Your task to perform on an android device: Clear the cart on newegg.com. Add "corsair k70" to the cart on newegg.com, then select checkout. Image 0: 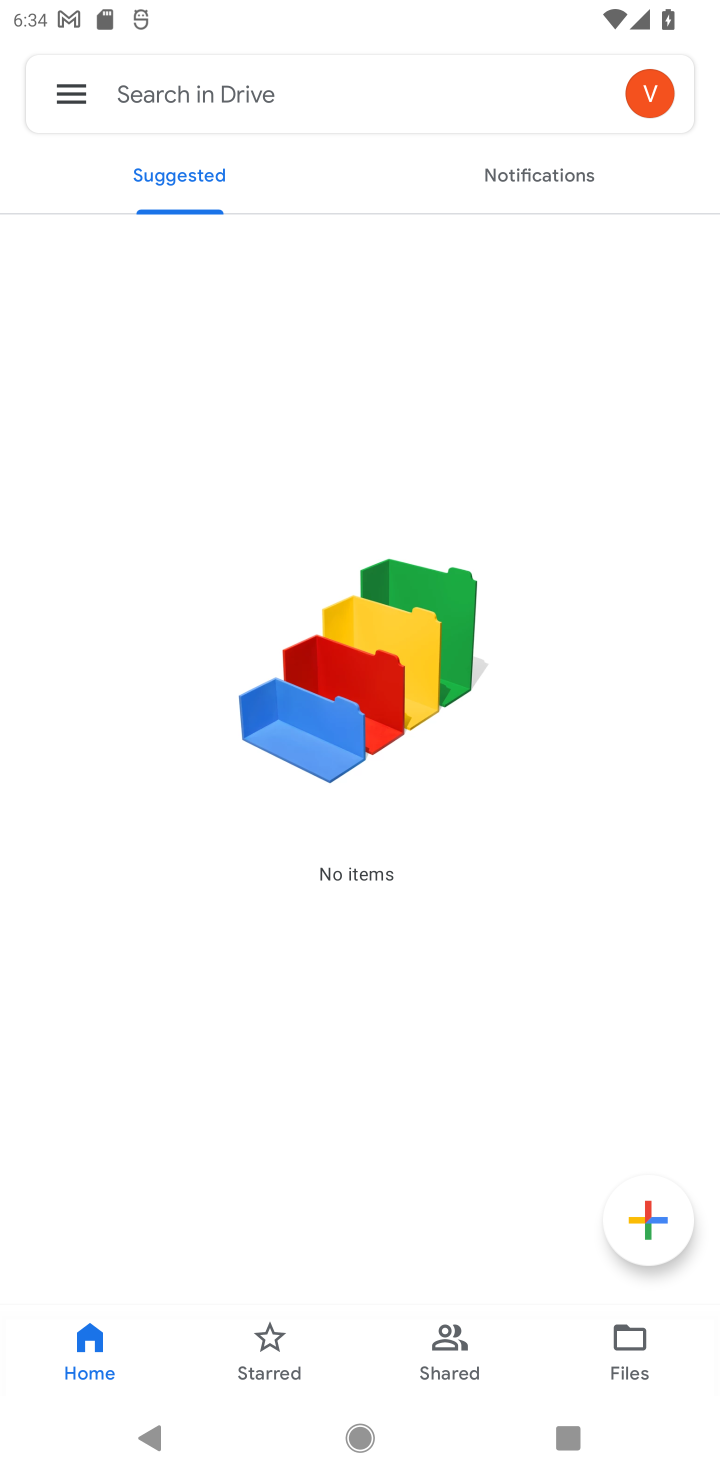
Step 0: press home button
Your task to perform on an android device: Clear the cart on newegg.com. Add "corsair k70" to the cart on newegg.com, then select checkout. Image 1: 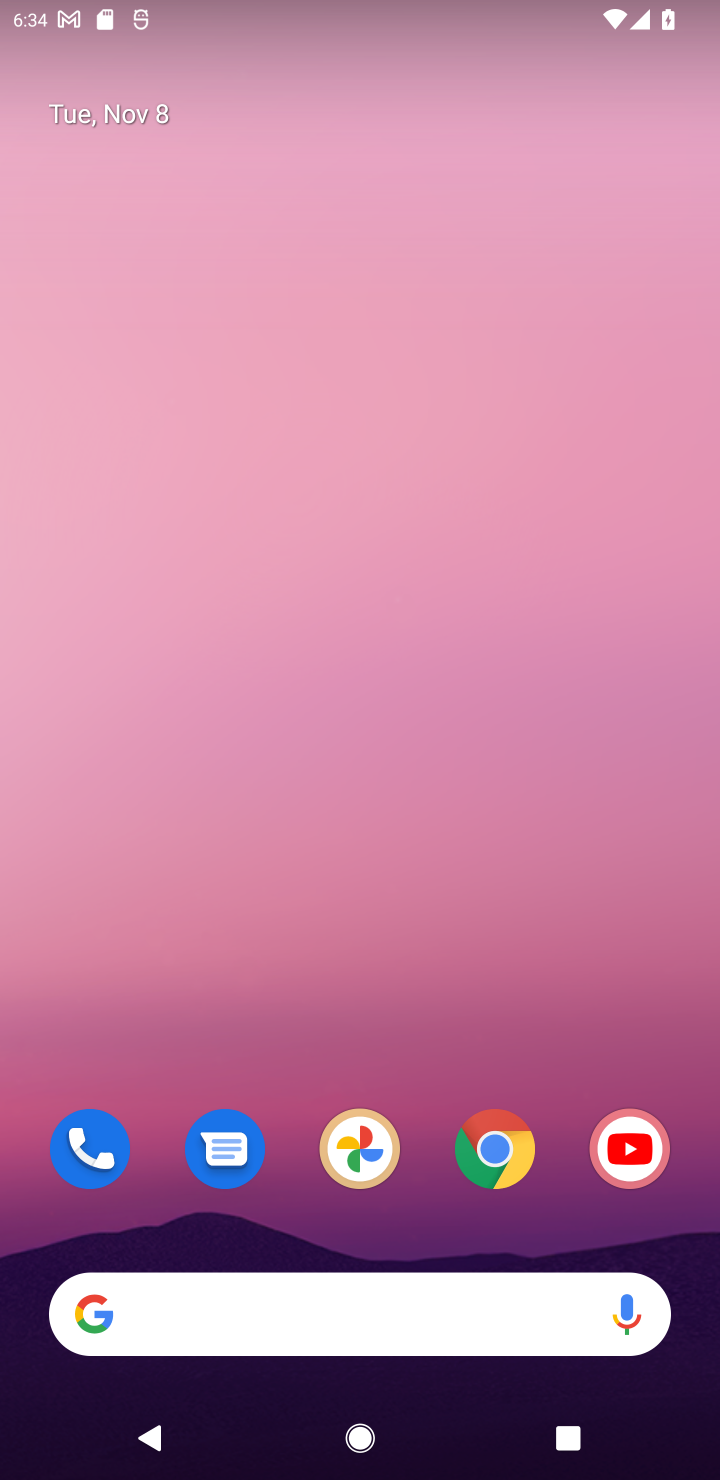
Step 1: click (512, 1146)
Your task to perform on an android device: Clear the cart on newegg.com. Add "corsair k70" to the cart on newegg.com, then select checkout. Image 2: 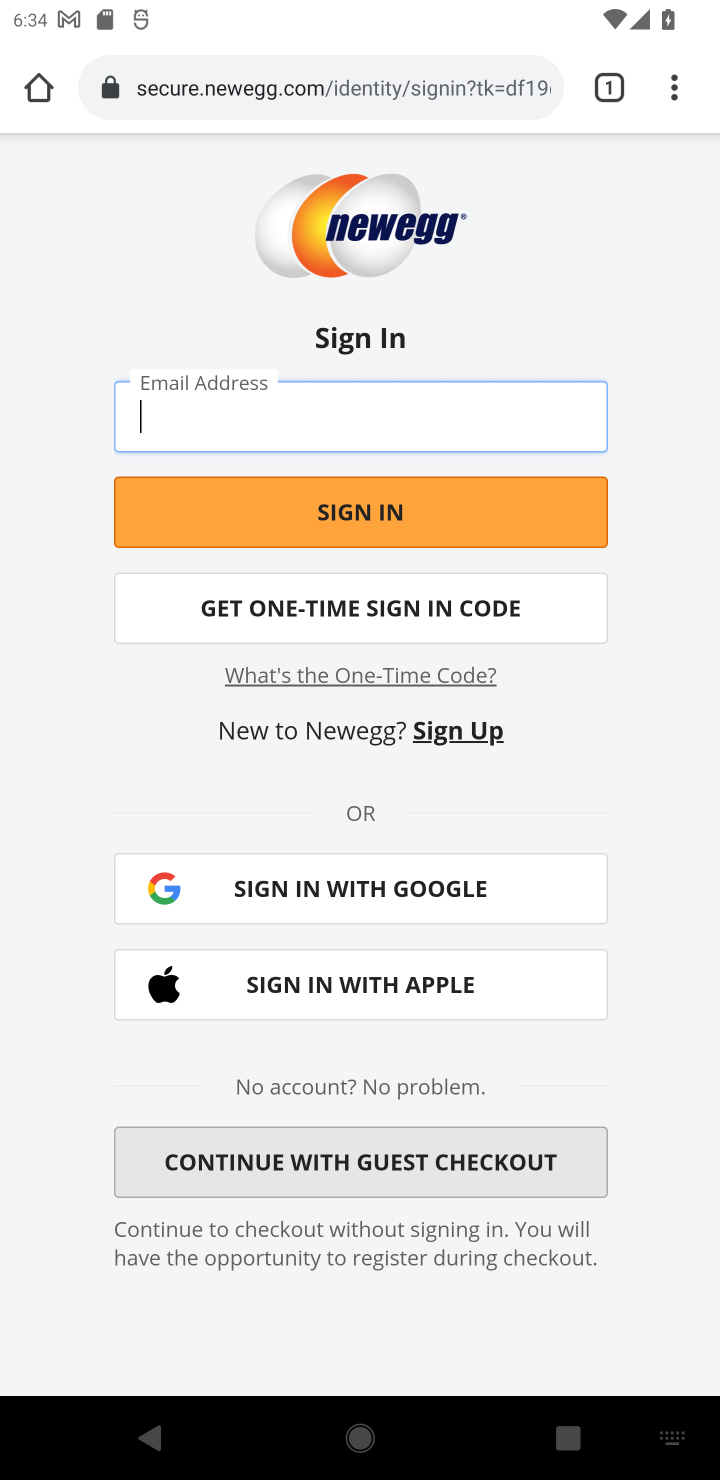
Step 2: press back button
Your task to perform on an android device: Clear the cart on newegg.com. Add "corsair k70" to the cart on newegg.com, then select checkout. Image 3: 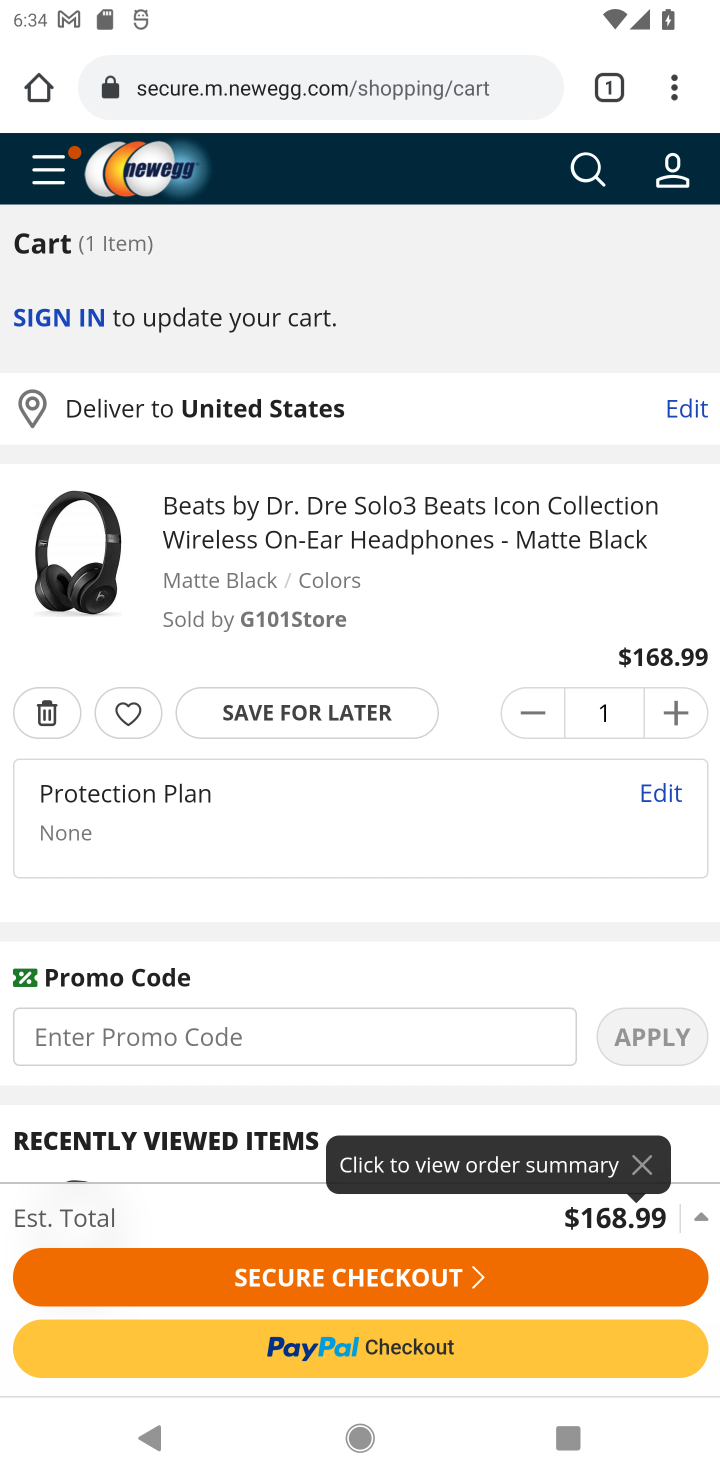
Step 3: click (518, 175)
Your task to perform on an android device: Clear the cart on newegg.com. Add "corsair k70" to the cart on newegg.com, then select checkout. Image 4: 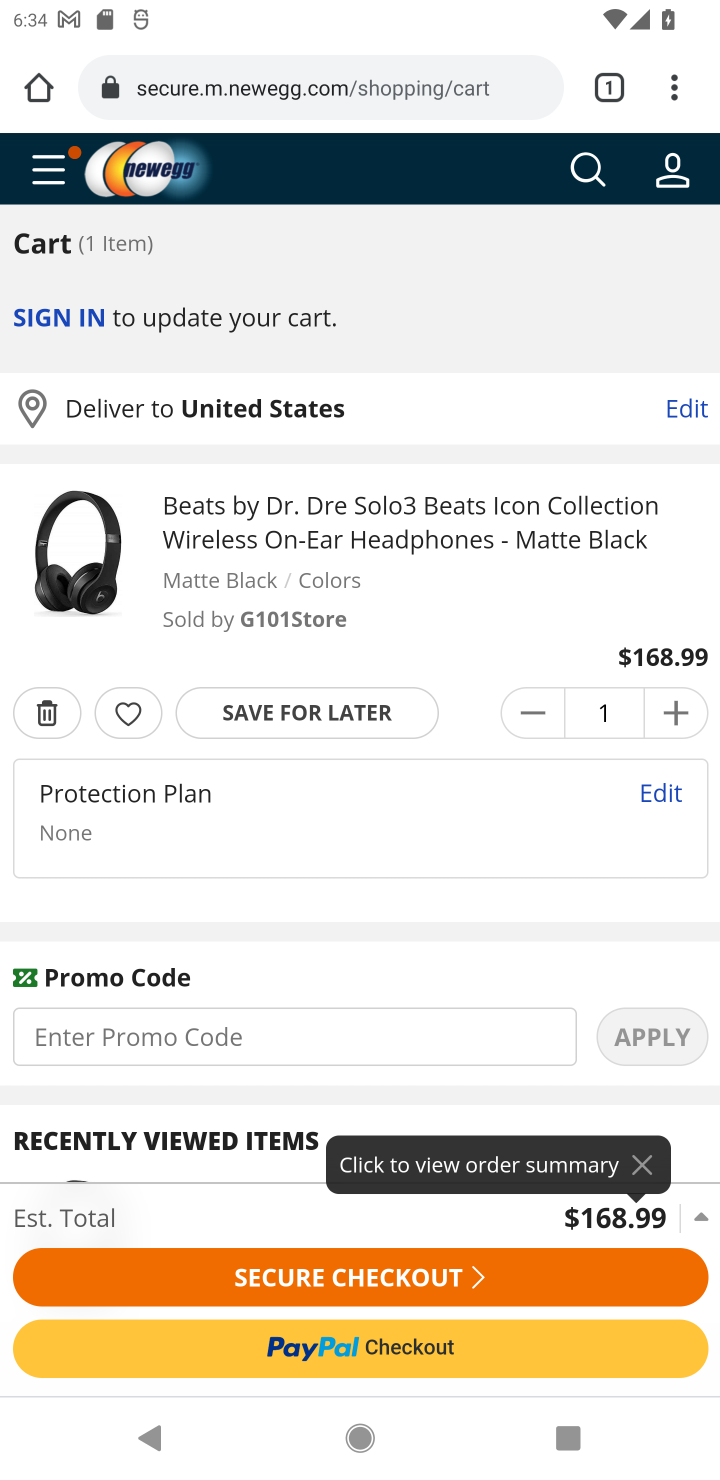
Step 4: click (516, 174)
Your task to perform on an android device: Clear the cart on newegg.com. Add "corsair k70" to the cart on newegg.com, then select checkout. Image 5: 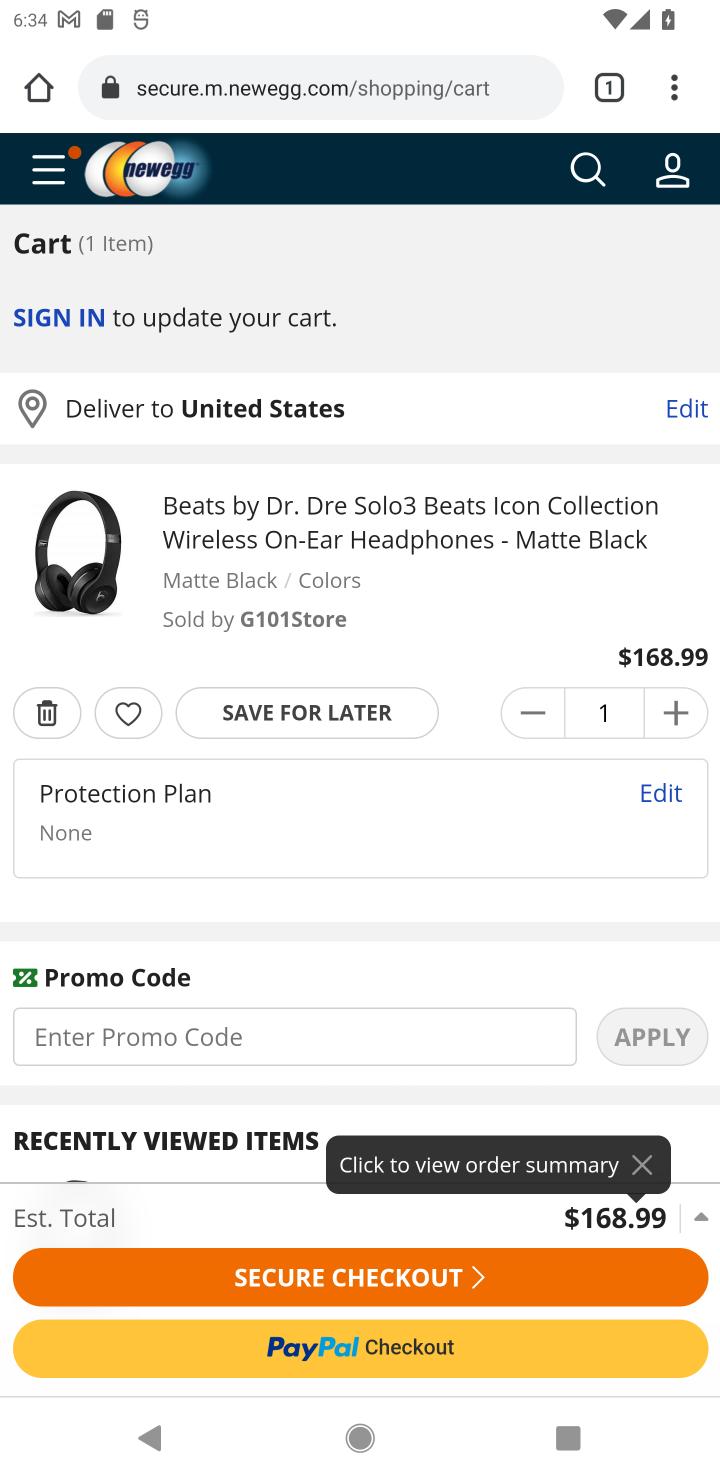
Step 5: click (688, 161)
Your task to perform on an android device: Clear the cart on newegg.com. Add "corsair k70" to the cart on newegg.com, then select checkout. Image 6: 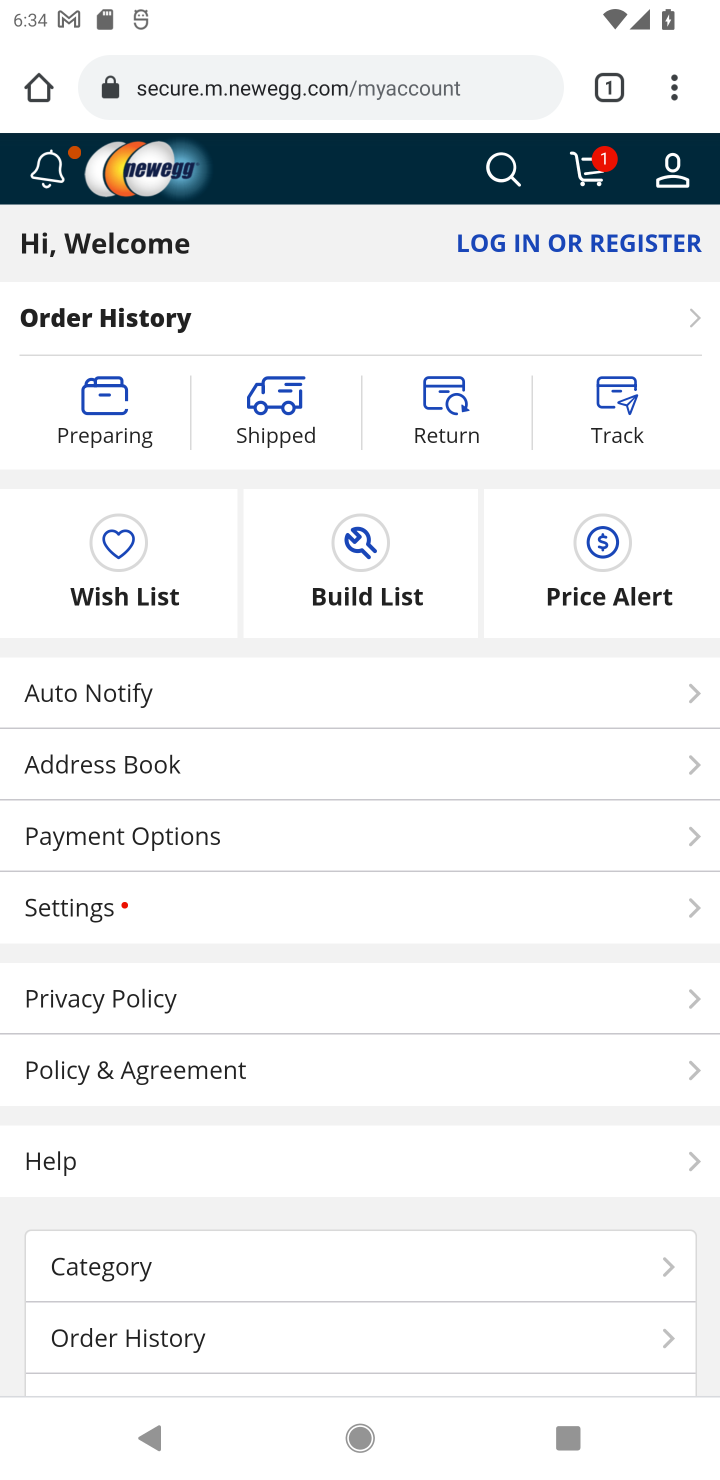
Step 6: click (579, 169)
Your task to perform on an android device: Clear the cart on newegg.com. Add "corsair k70" to the cart on newegg.com, then select checkout. Image 7: 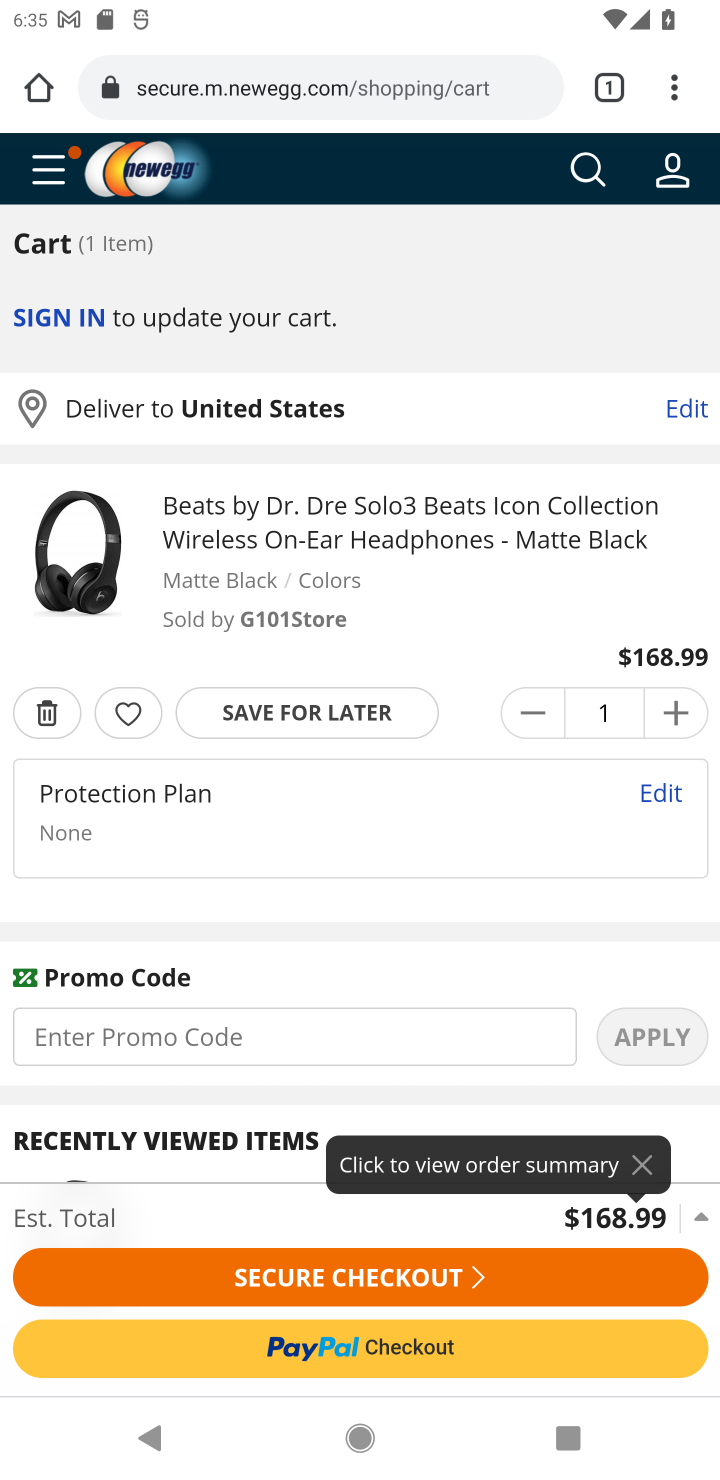
Step 7: click (581, 161)
Your task to perform on an android device: Clear the cart on newegg.com. Add "corsair k70" to the cart on newegg.com, then select checkout. Image 8: 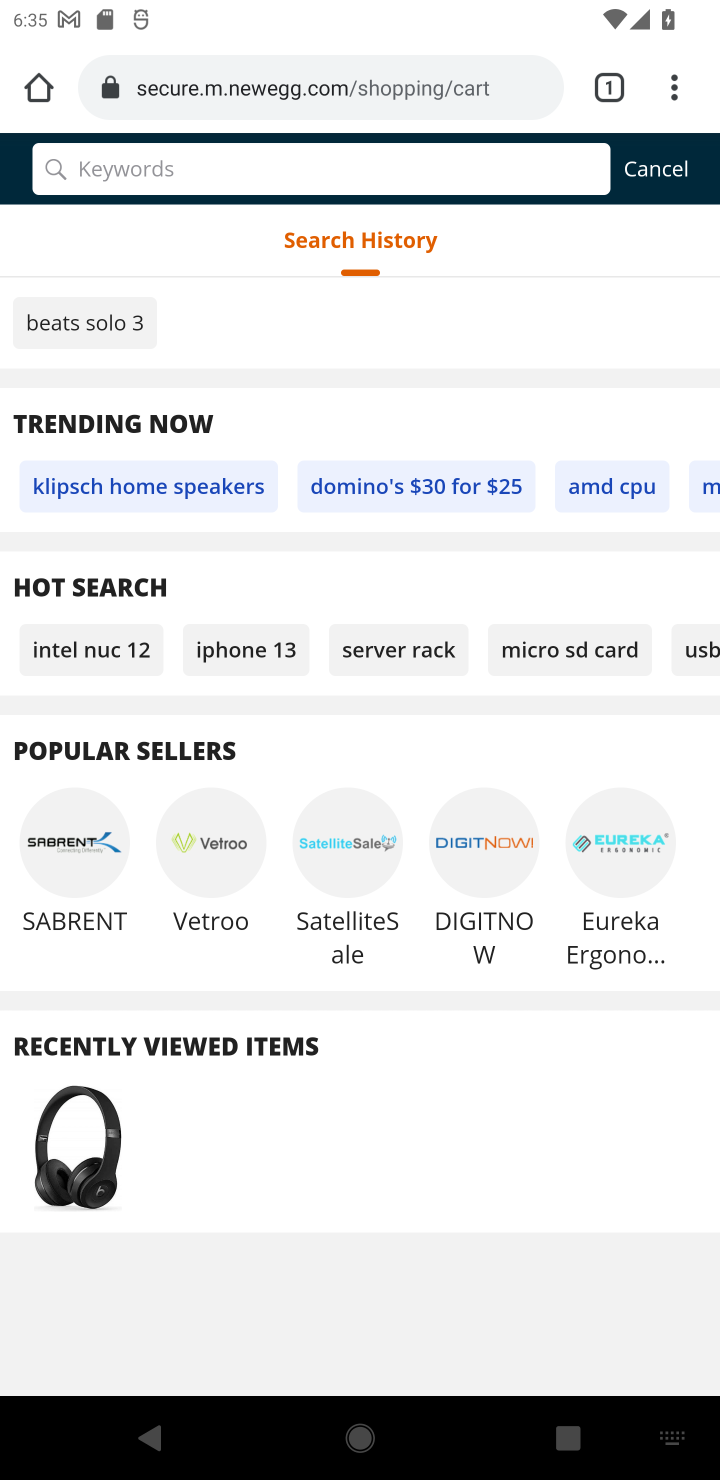
Step 8: click (670, 162)
Your task to perform on an android device: Clear the cart on newegg.com. Add "corsair k70" to the cart on newegg.com, then select checkout. Image 9: 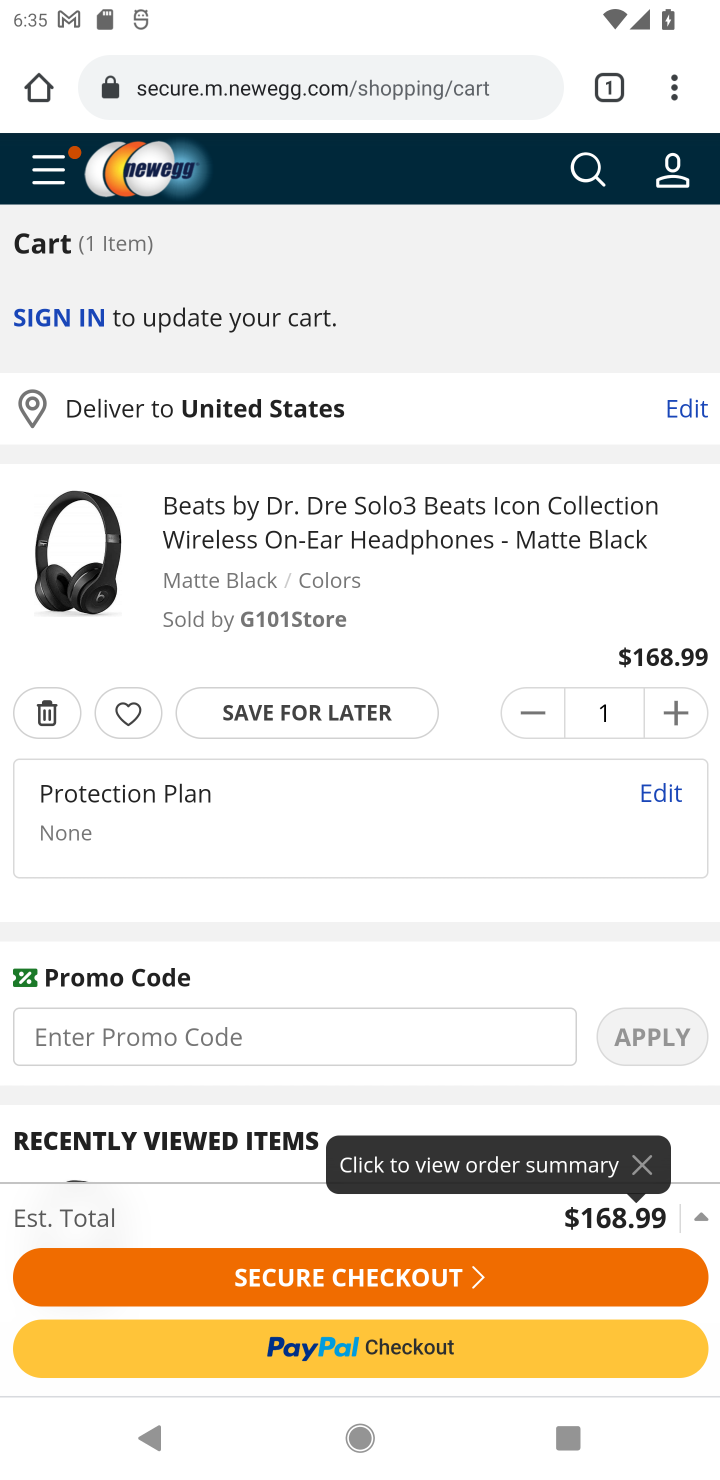
Step 9: click (674, 160)
Your task to perform on an android device: Clear the cart on newegg.com. Add "corsair k70" to the cart on newegg.com, then select checkout. Image 10: 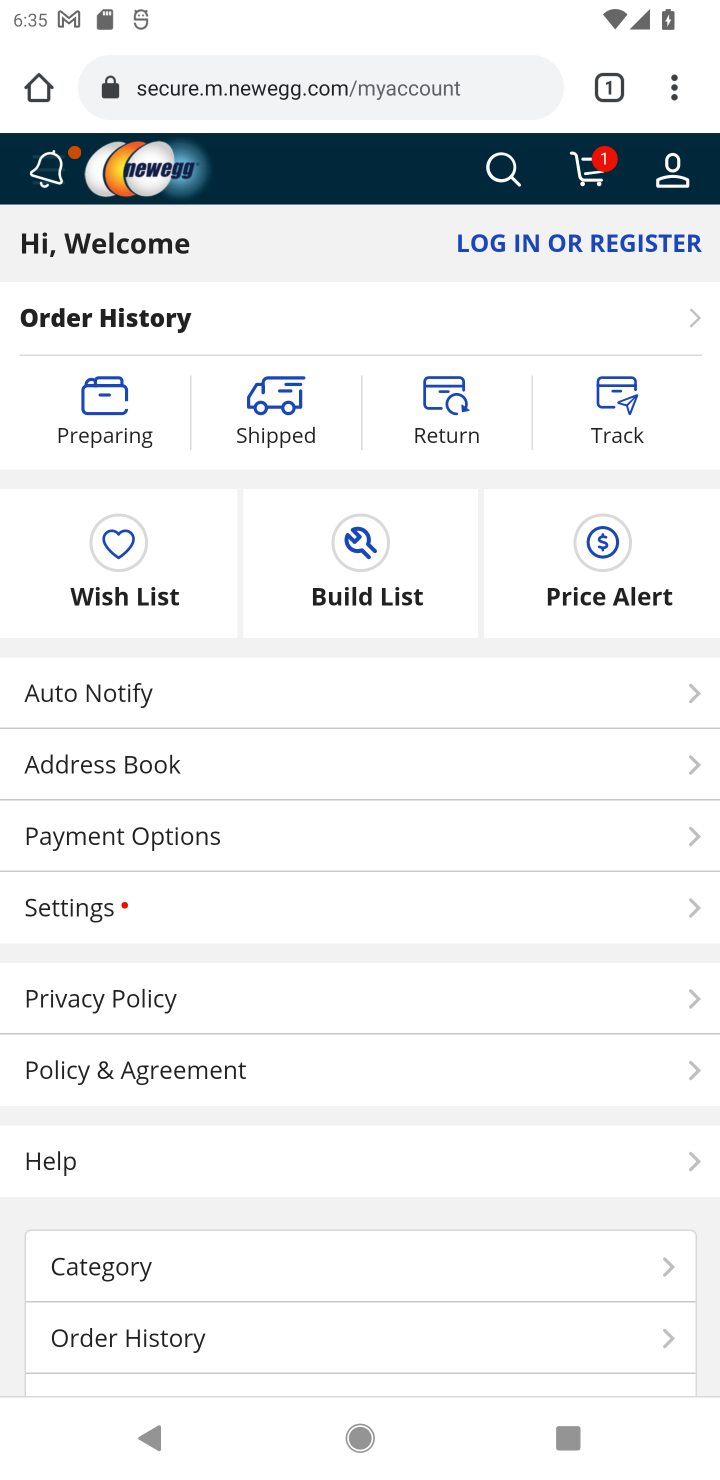
Step 10: click (584, 178)
Your task to perform on an android device: Clear the cart on newegg.com. Add "corsair k70" to the cart on newegg.com, then select checkout. Image 11: 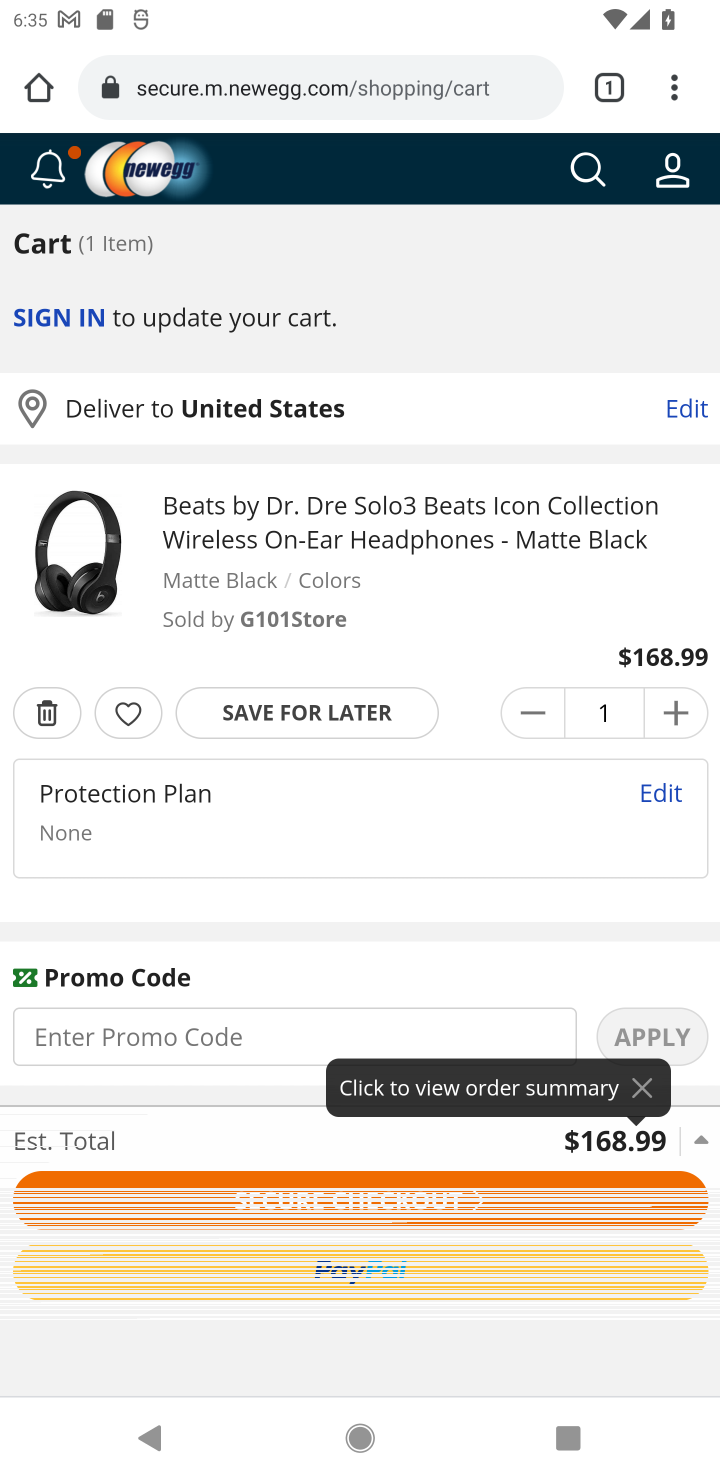
Step 11: click (44, 721)
Your task to perform on an android device: Clear the cart on newegg.com. Add "corsair k70" to the cart on newegg.com, then select checkout. Image 12: 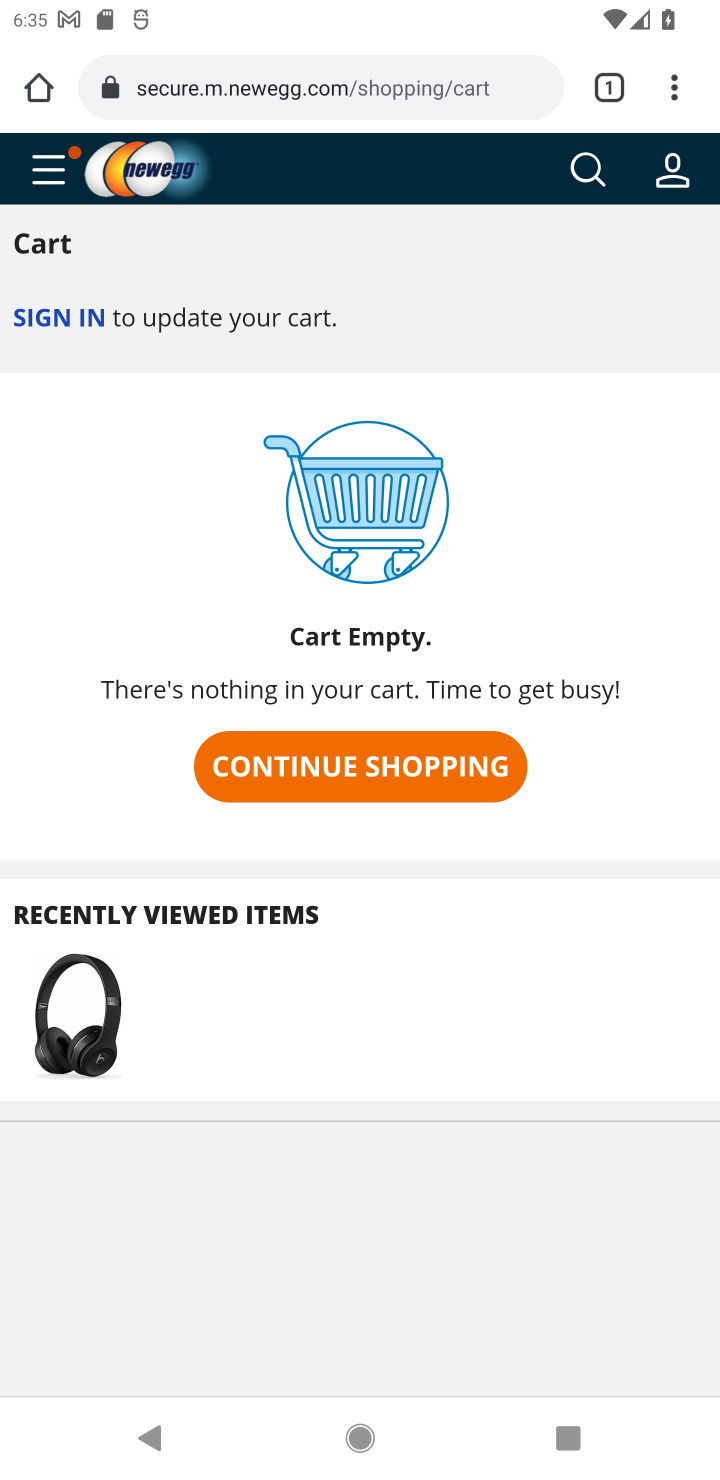
Step 12: click (570, 161)
Your task to perform on an android device: Clear the cart on newegg.com. Add "corsair k70" to the cart on newegg.com, then select checkout. Image 13: 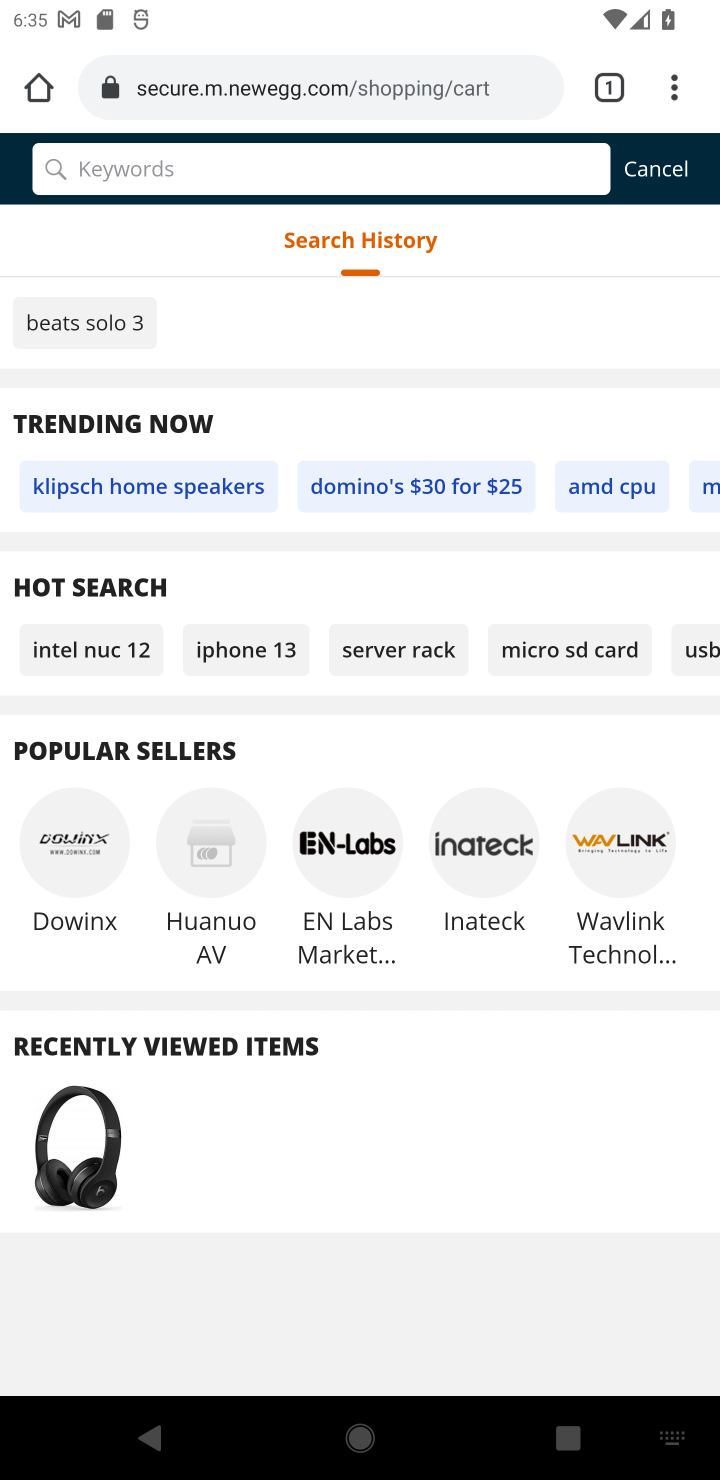
Step 13: press enter
Your task to perform on an android device: Clear the cart on newegg.com. Add "corsair k70" to the cart on newegg.com, then select checkout. Image 14: 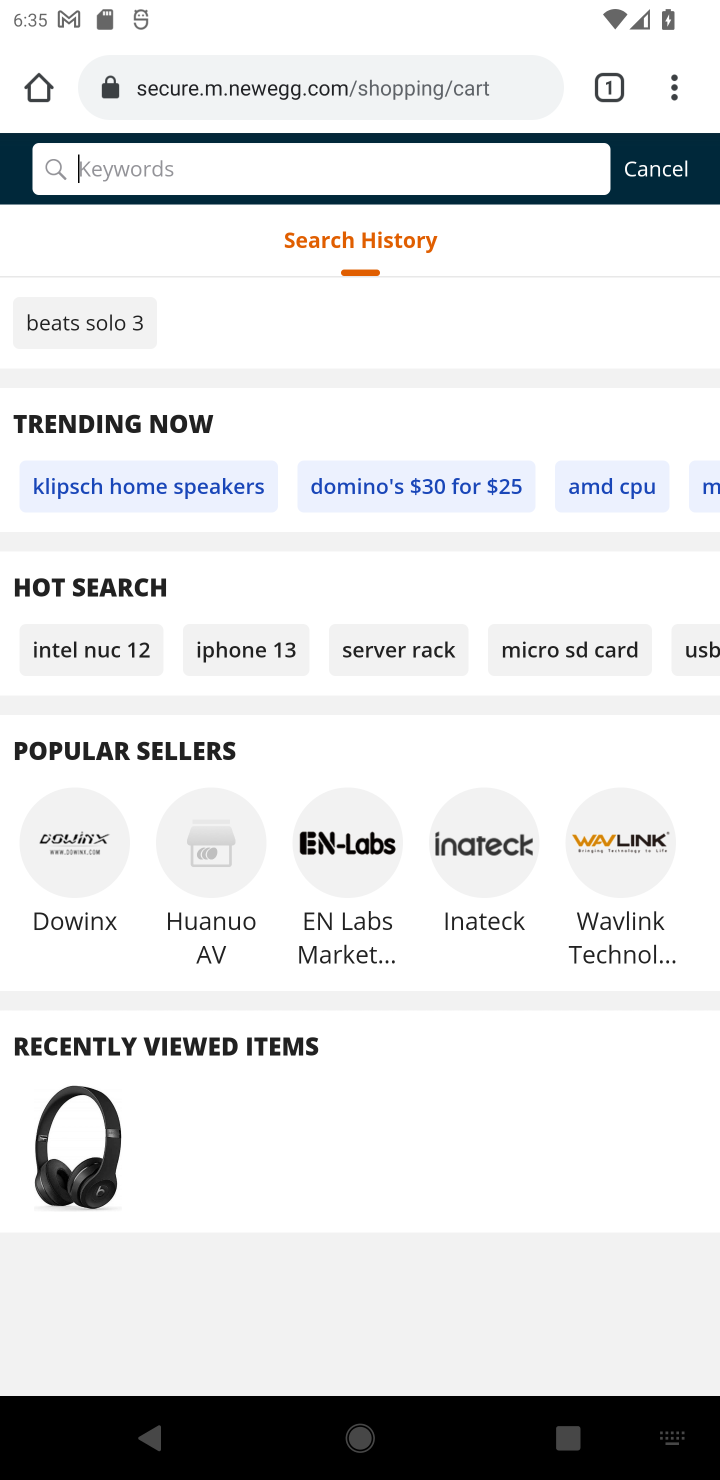
Step 14: type "corsair k70"
Your task to perform on an android device: Clear the cart on newegg.com. Add "corsair k70" to the cart on newegg.com, then select checkout. Image 15: 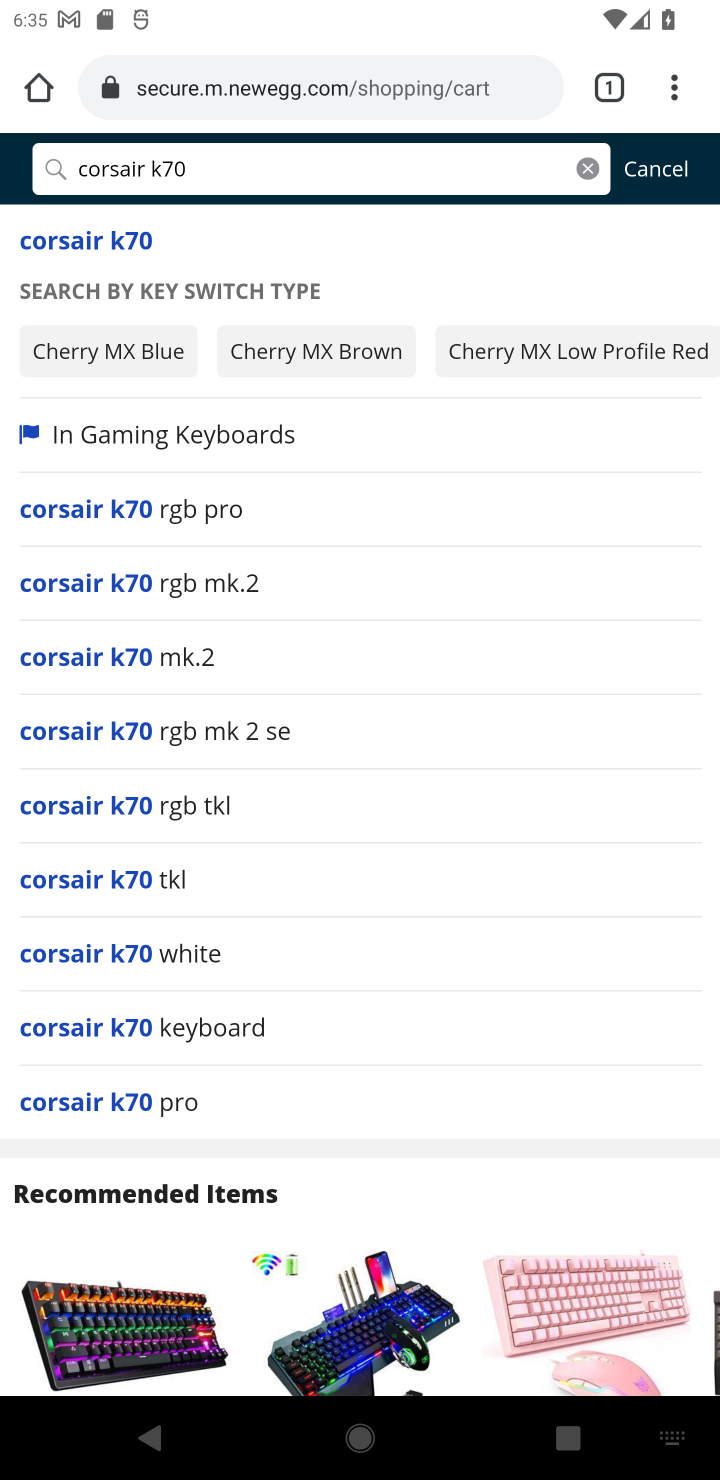
Step 15: click (108, 239)
Your task to perform on an android device: Clear the cart on newegg.com. Add "corsair k70" to the cart on newegg.com, then select checkout. Image 16: 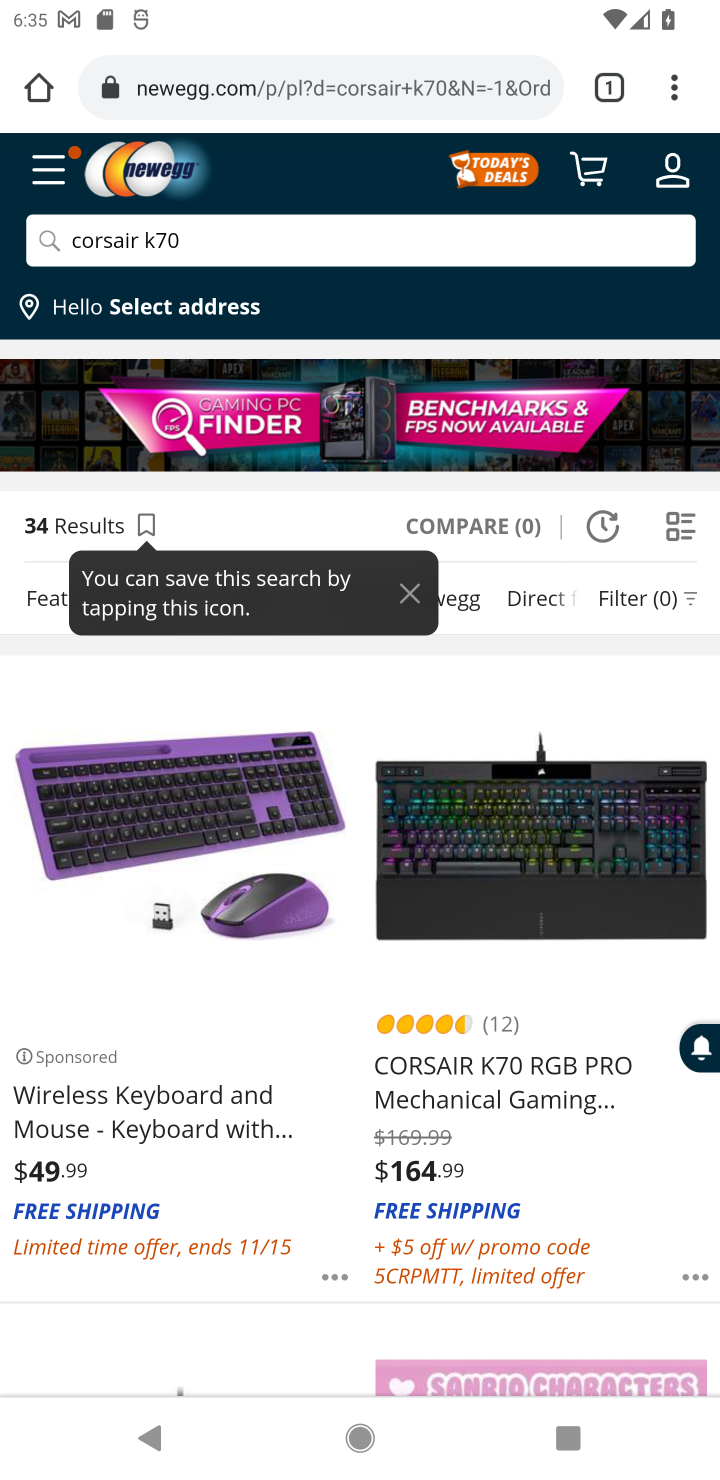
Step 16: click (549, 840)
Your task to perform on an android device: Clear the cart on newegg.com. Add "corsair k70" to the cart on newegg.com, then select checkout. Image 17: 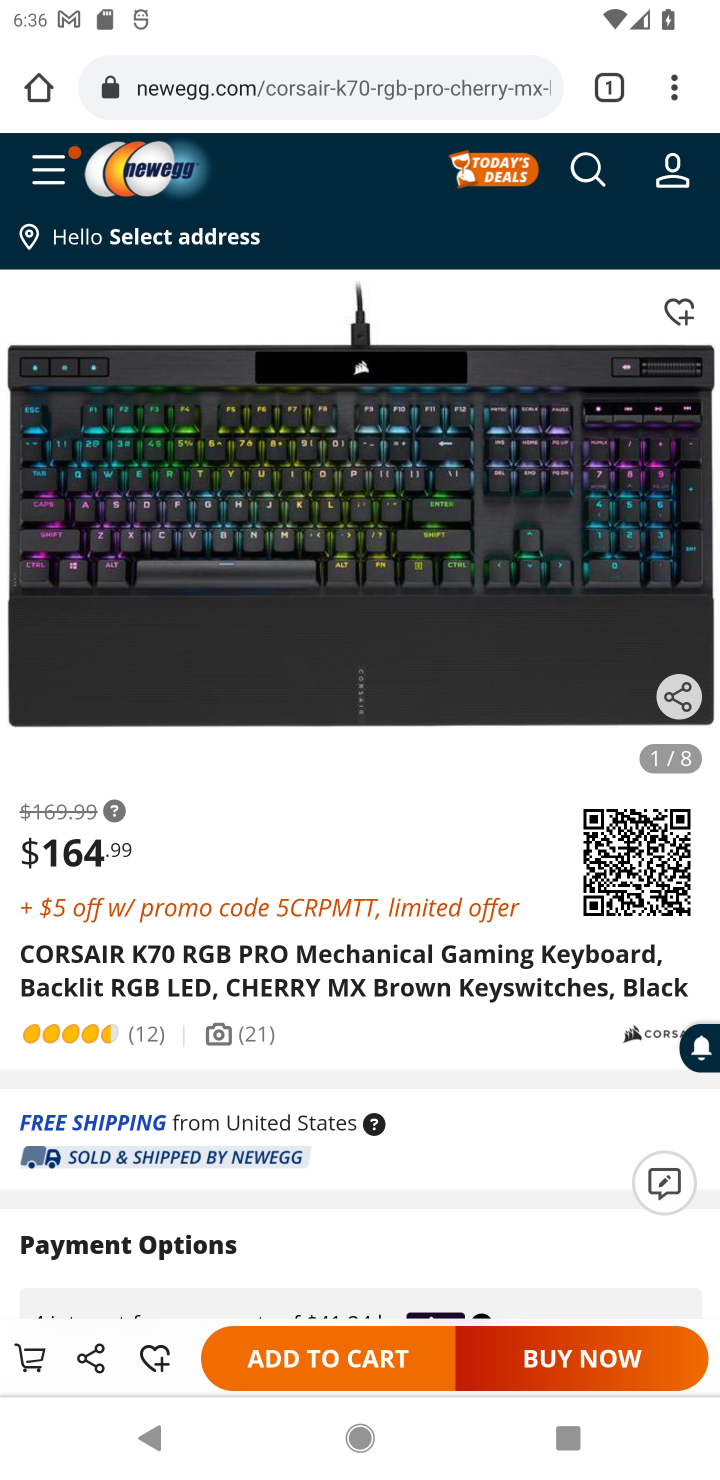
Step 17: click (348, 1355)
Your task to perform on an android device: Clear the cart on newegg.com. Add "corsair k70" to the cart on newegg.com, then select checkout. Image 18: 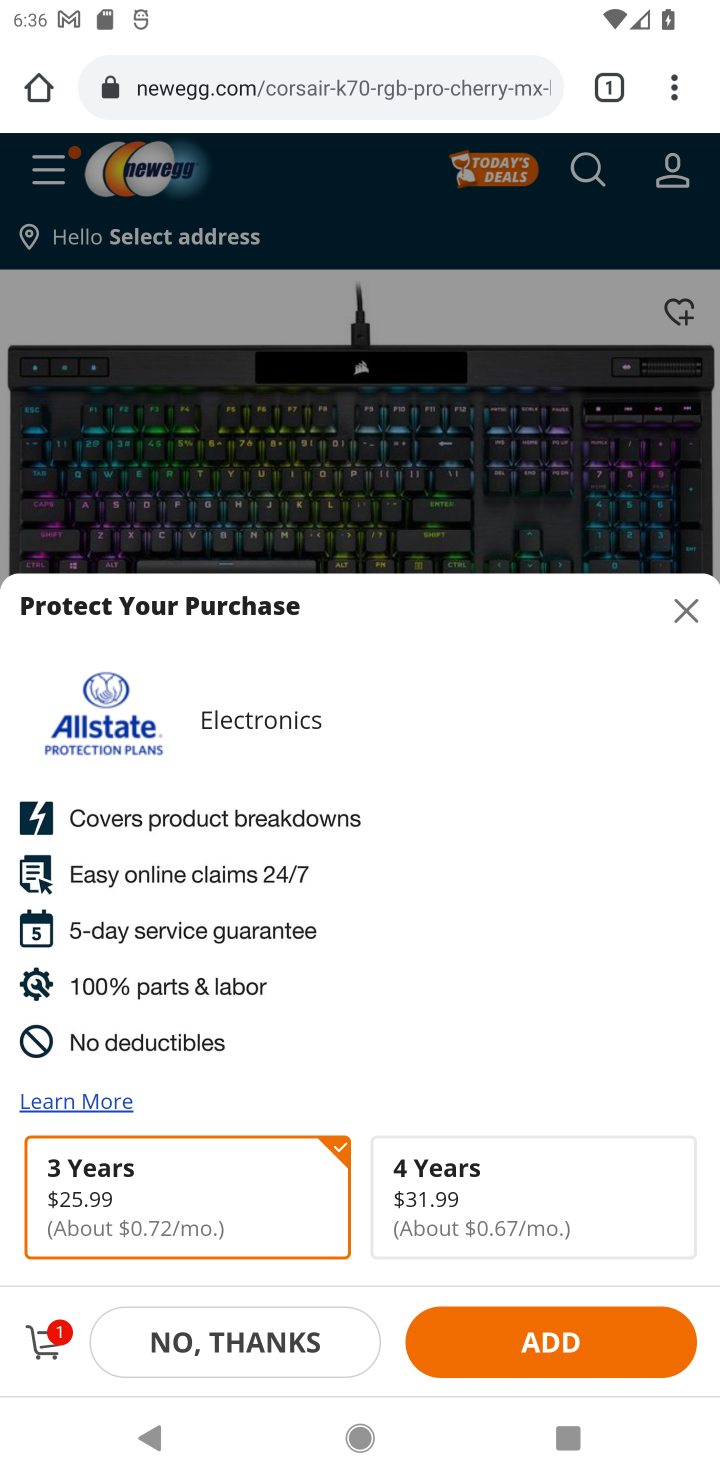
Step 18: click (691, 608)
Your task to perform on an android device: Clear the cart on newegg.com. Add "corsair k70" to the cart on newegg.com, then select checkout. Image 19: 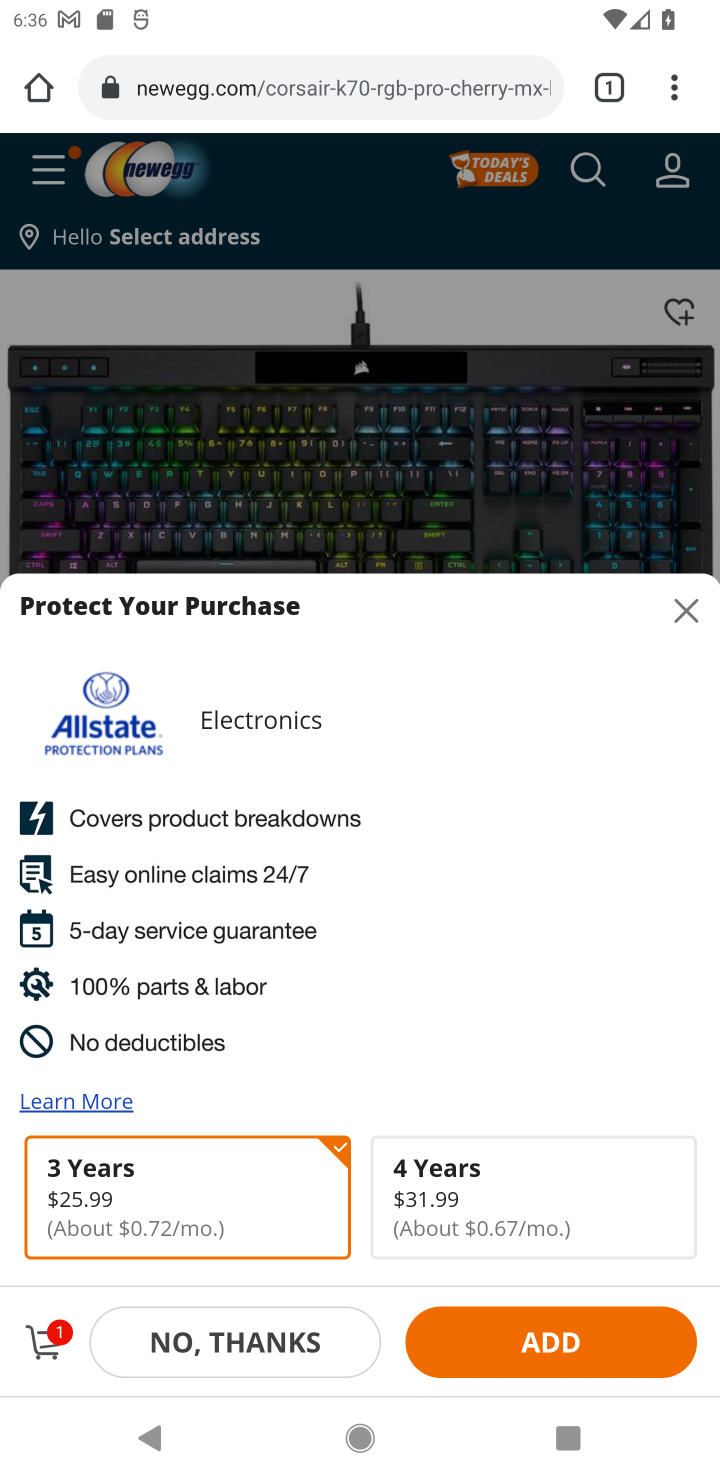
Step 19: click (685, 602)
Your task to perform on an android device: Clear the cart on newegg.com. Add "corsair k70" to the cart on newegg.com, then select checkout. Image 20: 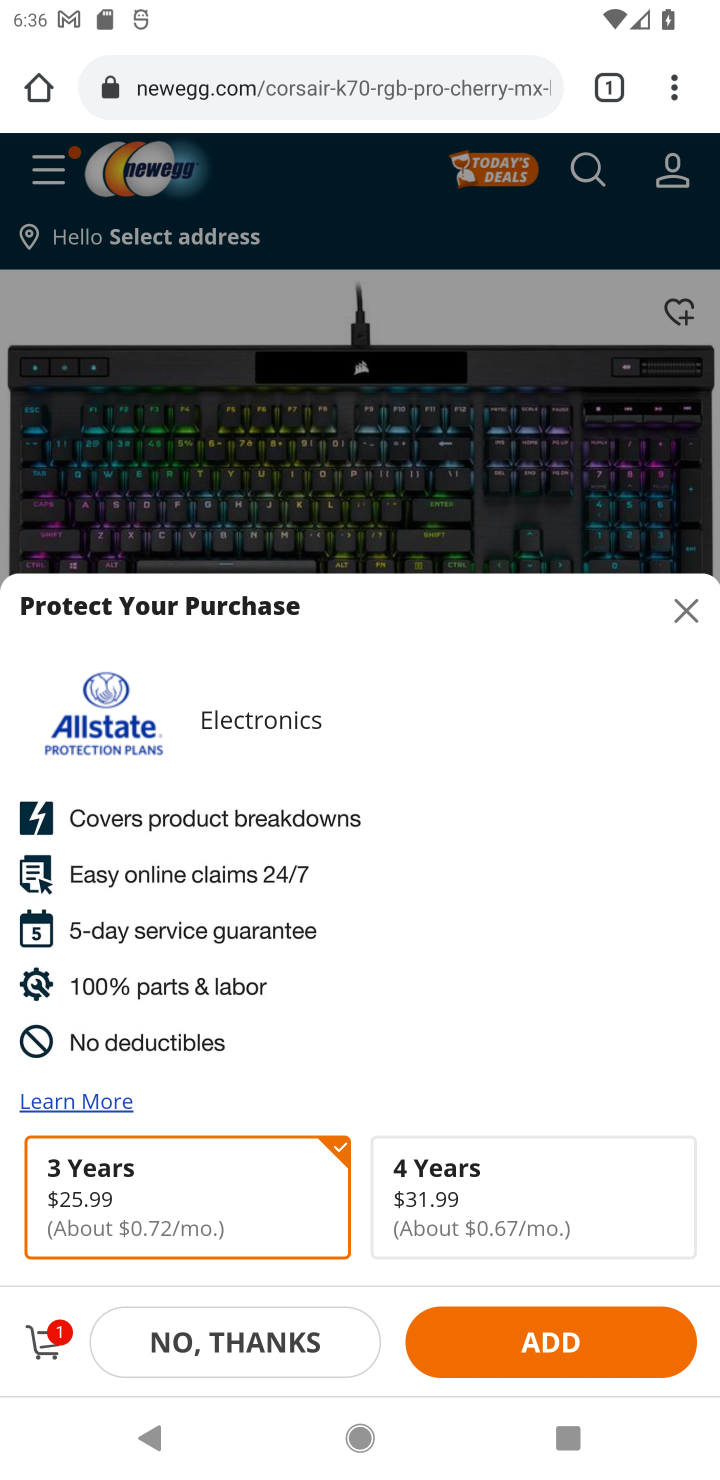
Step 20: click (593, 161)
Your task to perform on an android device: Clear the cart on newegg.com. Add "corsair k70" to the cart on newegg.com, then select checkout. Image 21: 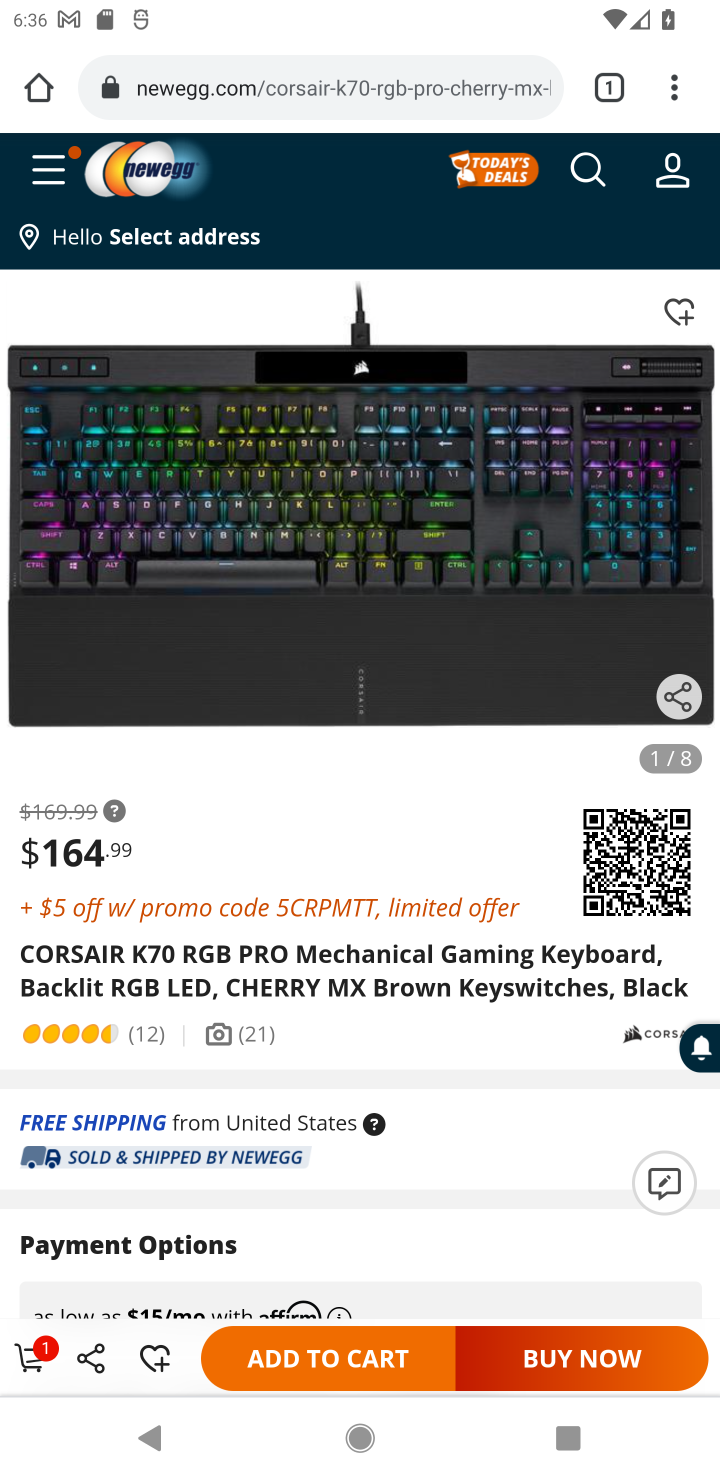
Step 21: click (24, 1363)
Your task to perform on an android device: Clear the cart on newegg.com. Add "corsair k70" to the cart on newegg.com, then select checkout. Image 22: 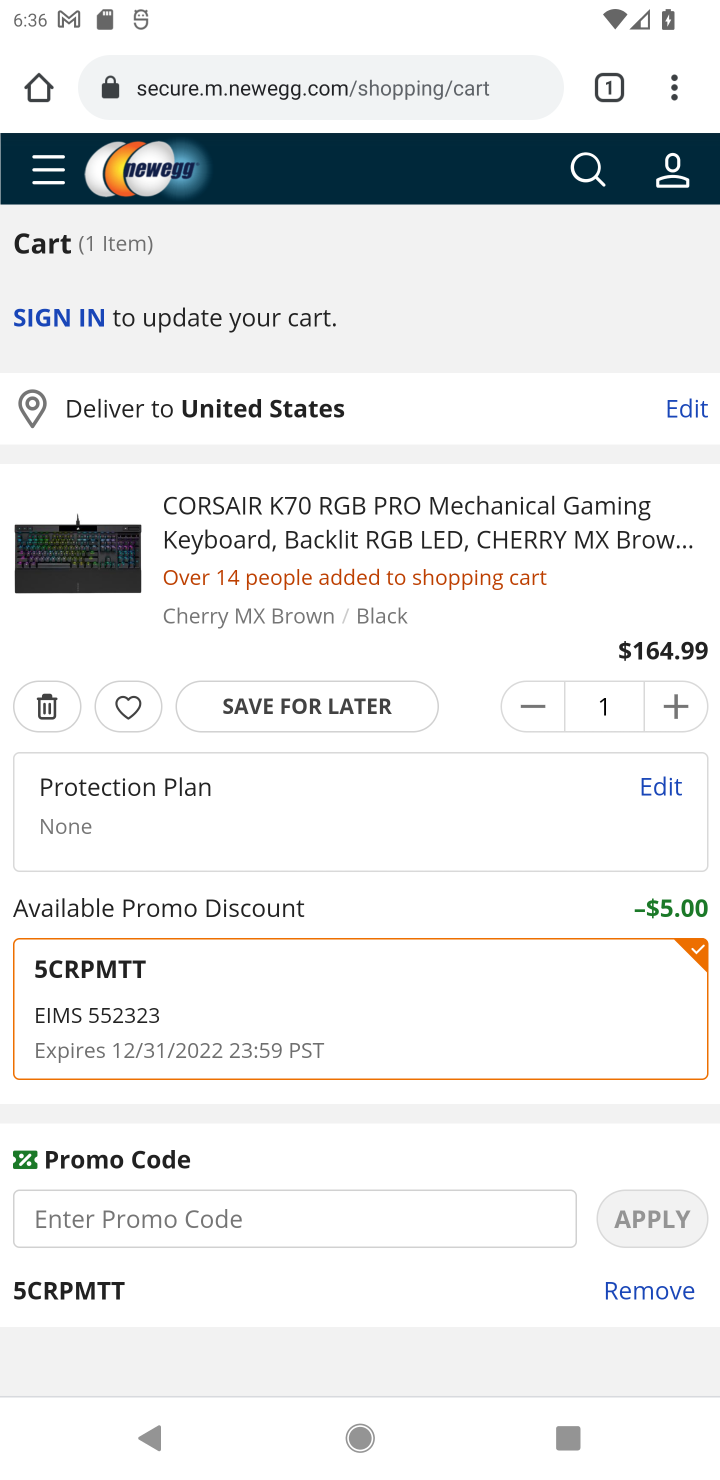
Step 22: click (361, 1344)
Your task to perform on an android device: Clear the cart on newegg.com. Add "corsair k70" to the cart on newegg.com, then select checkout. Image 23: 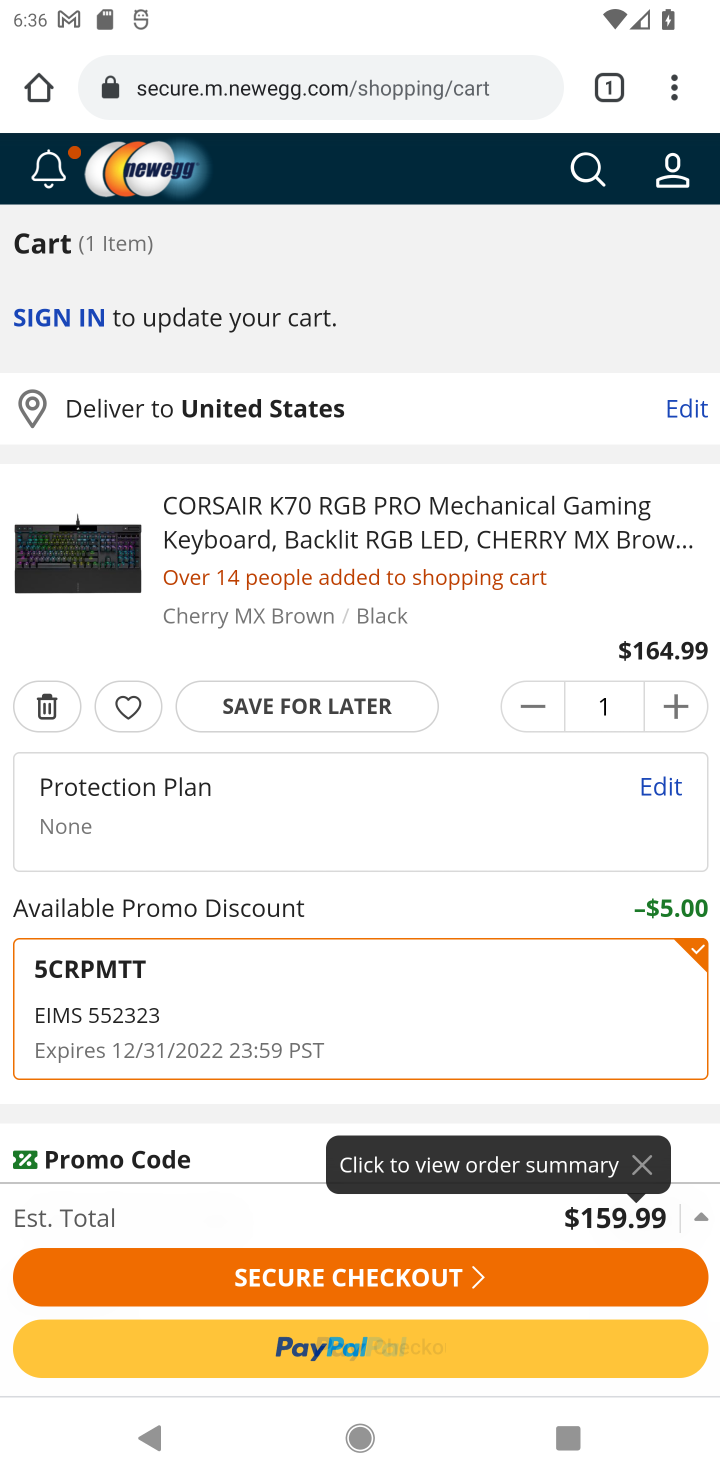
Step 23: click (381, 1277)
Your task to perform on an android device: Clear the cart on newegg.com. Add "corsair k70" to the cart on newegg.com, then select checkout. Image 24: 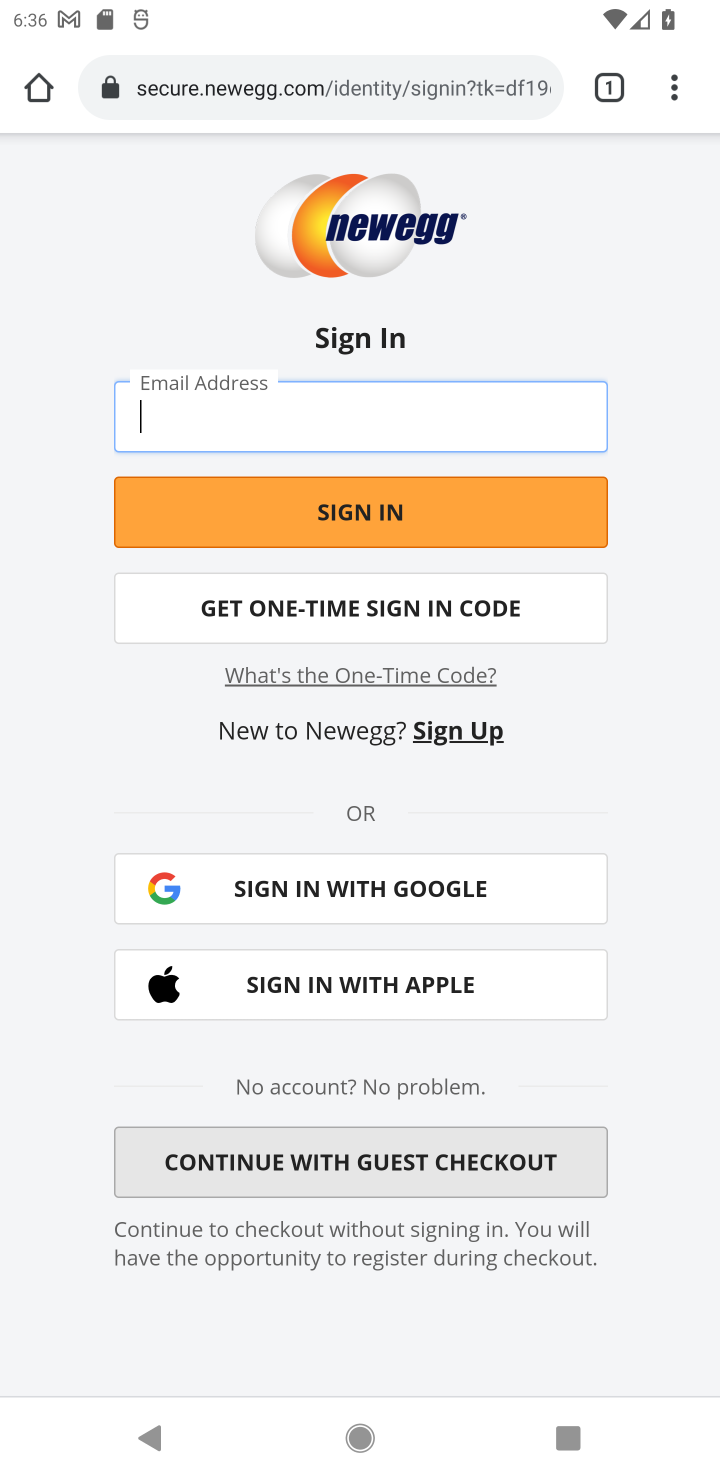
Step 24: task complete